Your task to perform on an android device: Open Google Image 0: 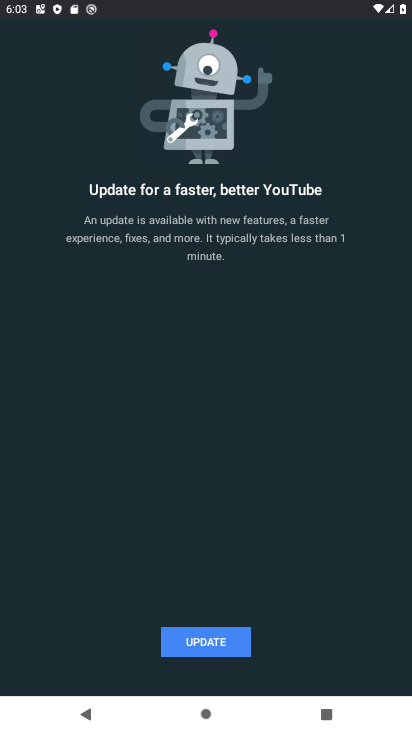
Step 0: press back button
Your task to perform on an android device: Open Google Image 1: 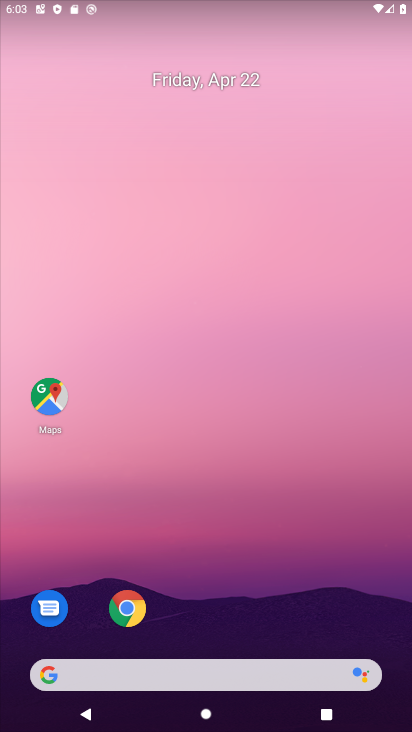
Step 1: drag from (224, 486) to (185, 131)
Your task to perform on an android device: Open Google Image 2: 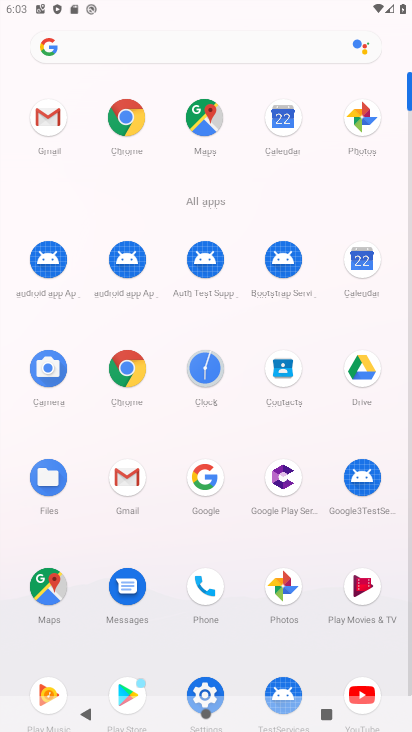
Step 2: click (208, 500)
Your task to perform on an android device: Open Google Image 3: 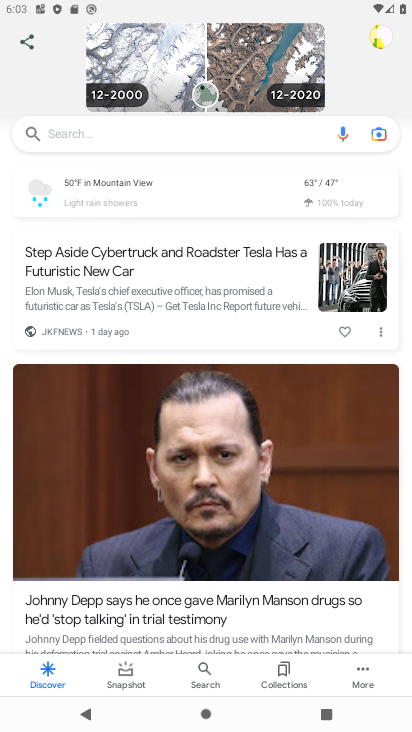
Step 3: task complete